Your task to perform on an android device: open chrome and create a bookmark for the current page Image 0: 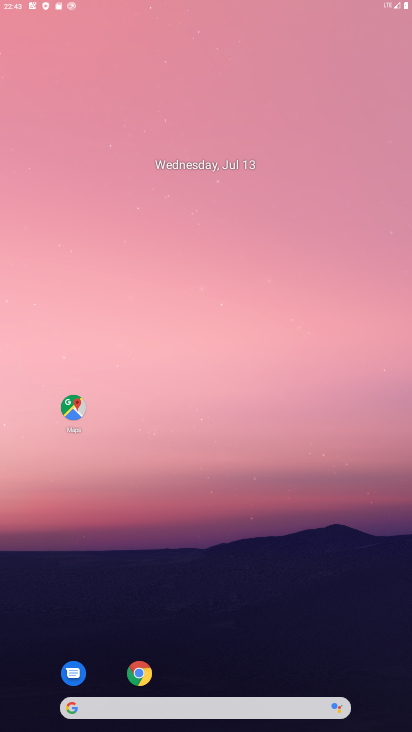
Step 0: drag from (382, 486) to (154, 175)
Your task to perform on an android device: open chrome and create a bookmark for the current page Image 1: 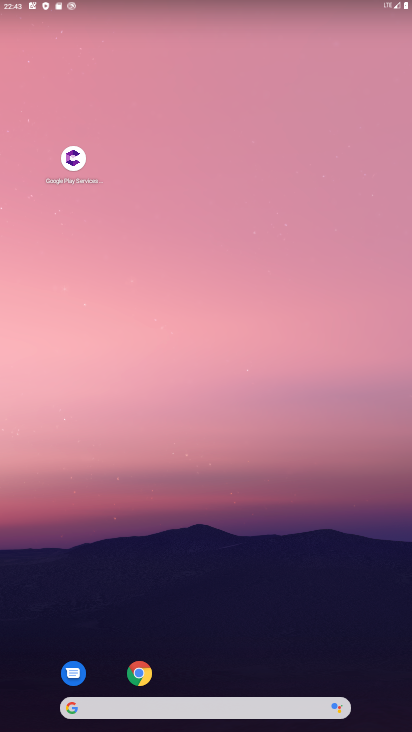
Step 1: drag from (176, 629) to (196, 247)
Your task to perform on an android device: open chrome and create a bookmark for the current page Image 2: 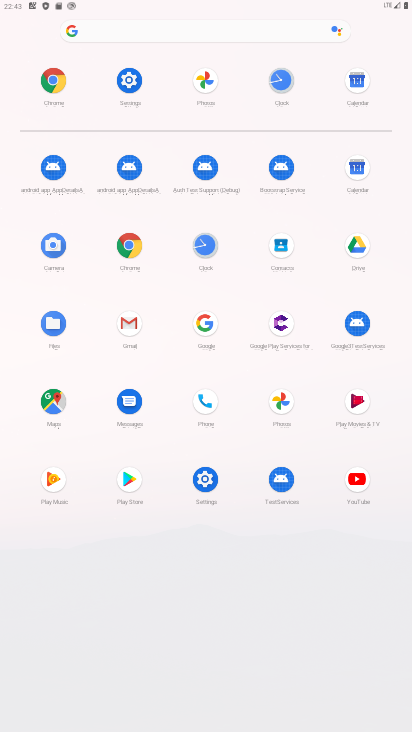
Step 2: click (131, 243)
Your task to perform on an android device: open chrome and create a bookmark for the current page Image 3: 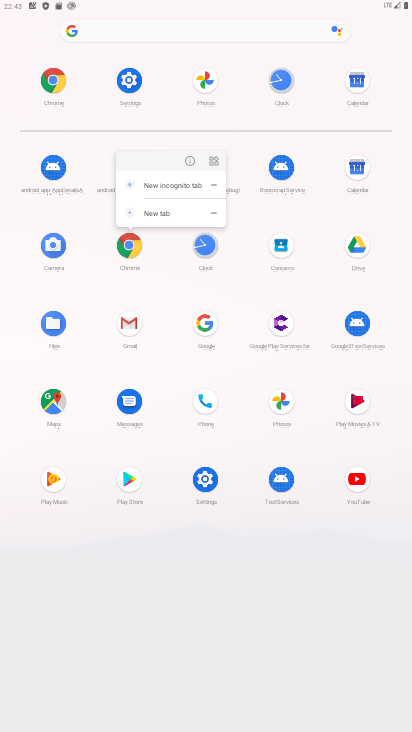
Step 3: click (190, 163)
Your task to perform on an android device: open chrome and create a bookmark for the current page Image 4: 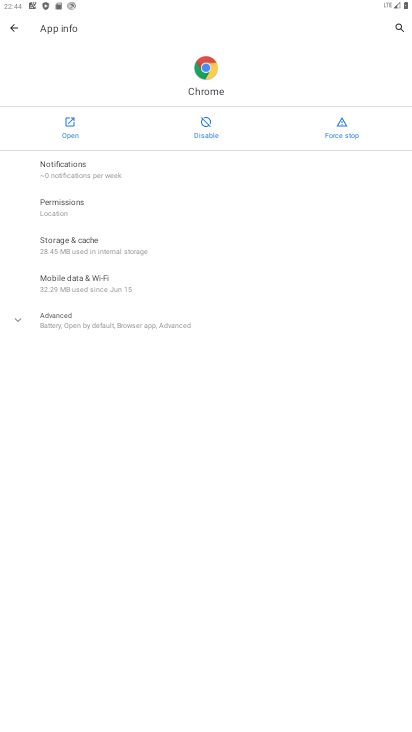
Step 4: click (72, 119)
Your task to perform on an android device: open chrome and create a bookmark for the current page Image 5: 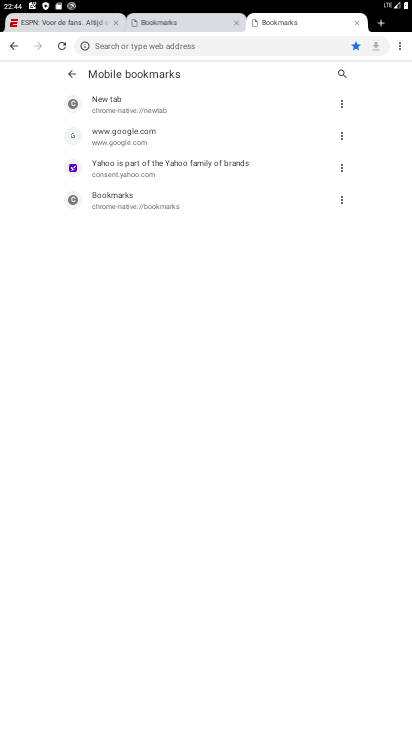
Step 5: task complete